Your task to perform on an android device: manage bookmarks in the chrome app Image 0: 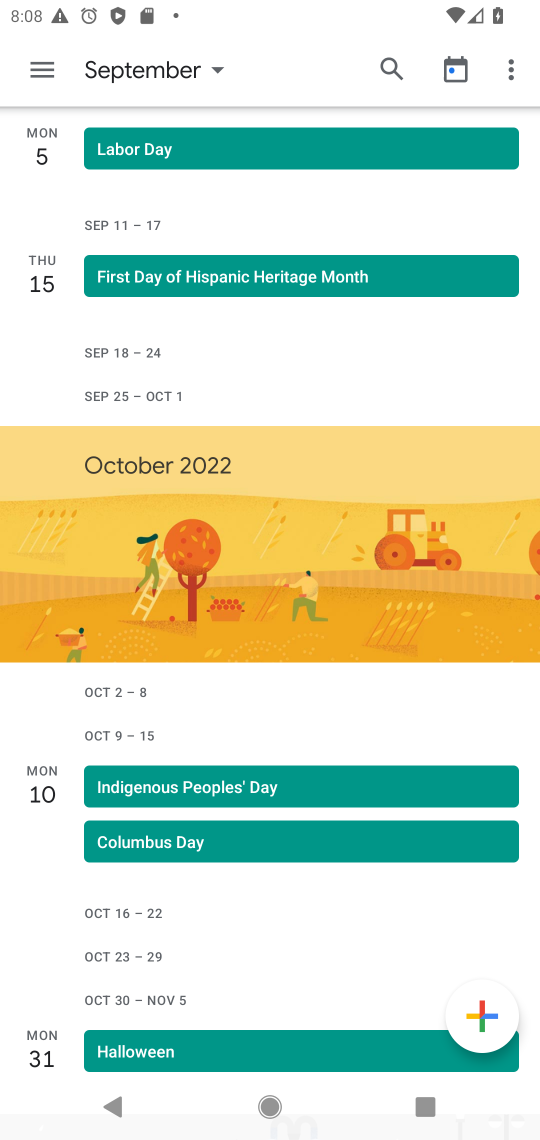
Step 0: press home button
Your task to perform on an android device: manage bookmarks in the chrome app Image 1: 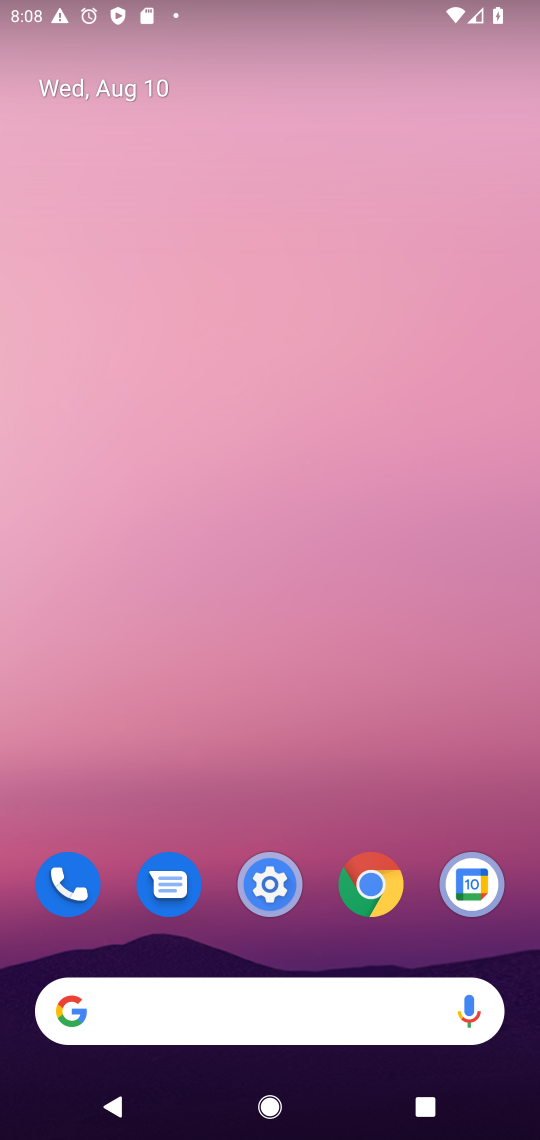
Step 1: click (369, 877)
Your task to perform on an android device: manage bookmarks in the chrome app Image 2: 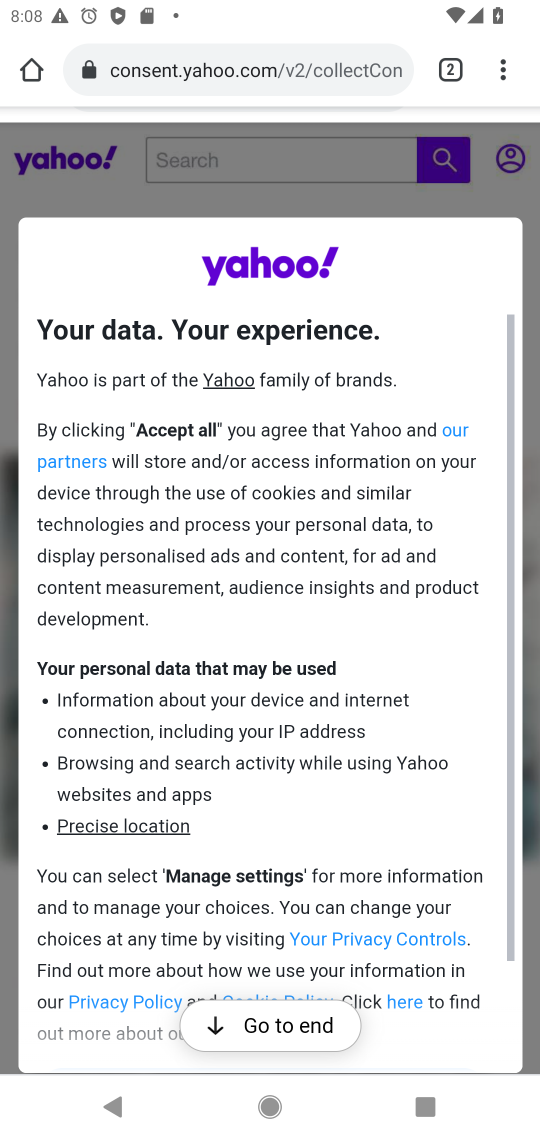
Step 2: click (508, 92)
Your task to perform on an android device: manage bookmarks in the chrome app Image 3: 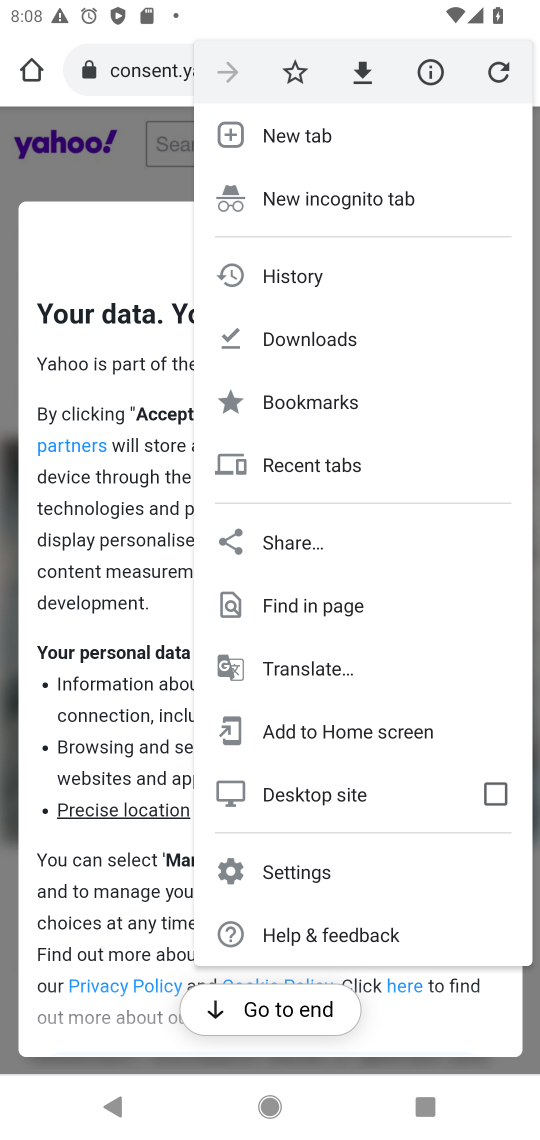
Step 3: click (290, 405)
Your task to perform on an android device: manage bookmarks in the chrome app Image 4: 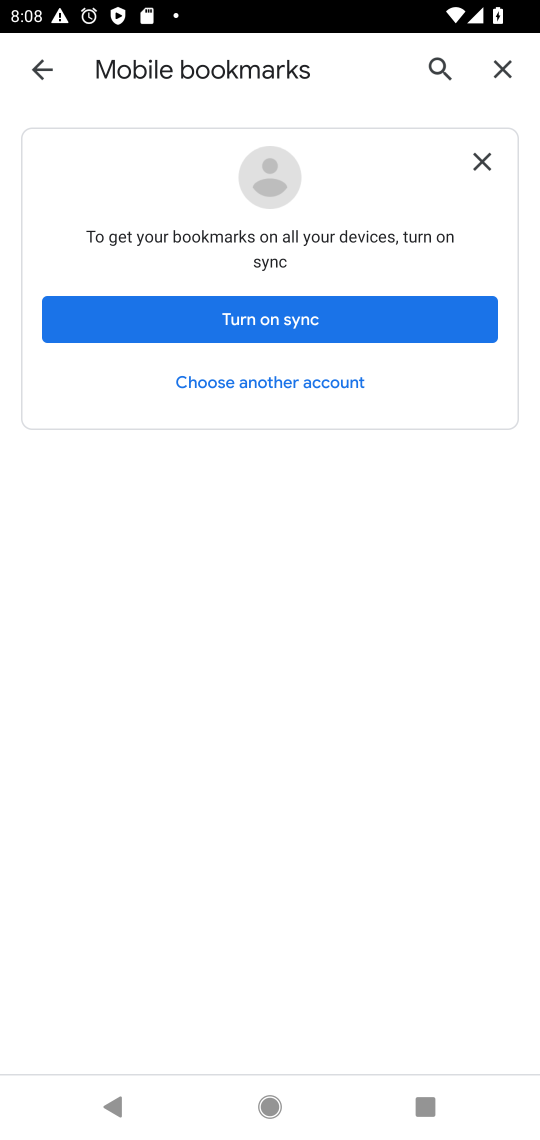
Step 4: click (485, 162)
Your task to perform on an android device: manage bookmarks in the chrome app Image 5: 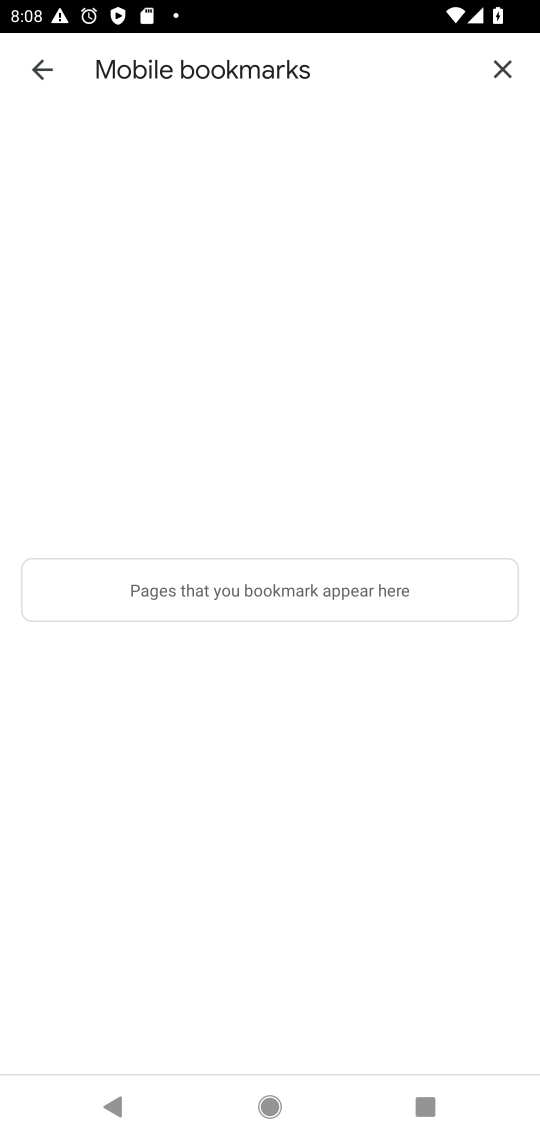
Step 5: task complete